Your task to perform on an android device: change your default location settings in chrome Image 0: 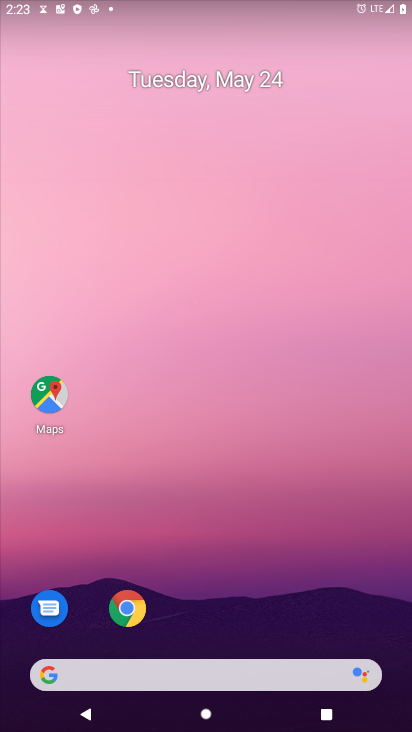
Step 0: drag from (253, 692) to (266, 70)
Your task to perform on an android device: change your default location settings in chrome Image 1: 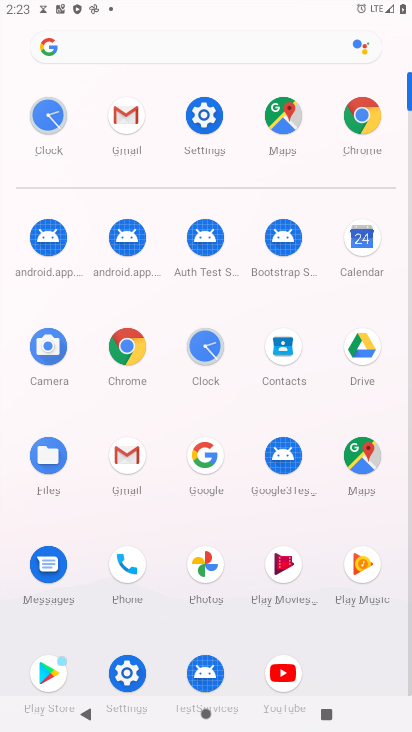
Step 1: click (360, 120)
Your task to perform on an android device: change your default location settings in chrome Image 2: 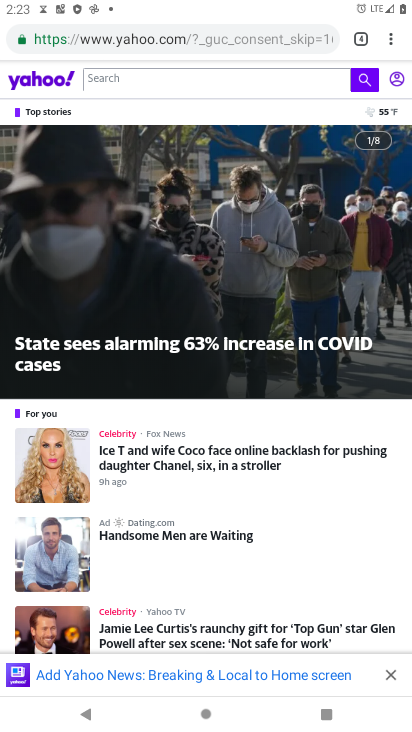
Step 2: click (391, 45)
Your task to perform on an android device: change your default location settings in chrome Image 3: 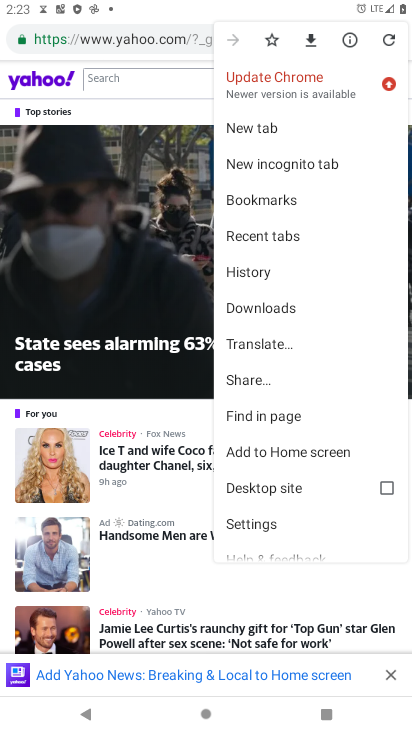
Step 3: click (240, 516)
Your task to perform on an android device: change your default location settings in chrome Image 4: 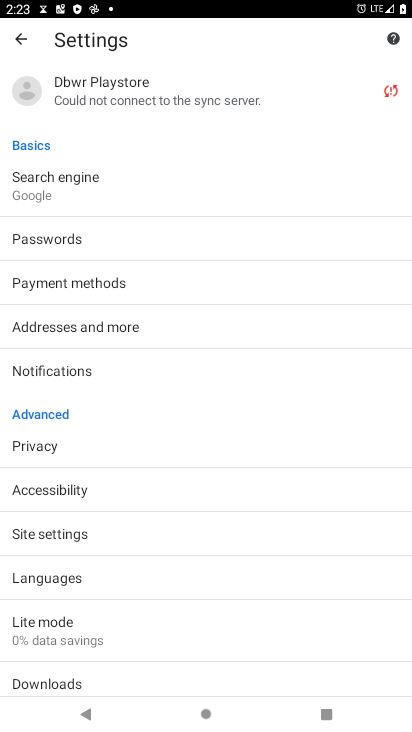
Step 4: click (46, 531)
Your task to perform on an android device: change your default location settings in chrome Image 5: 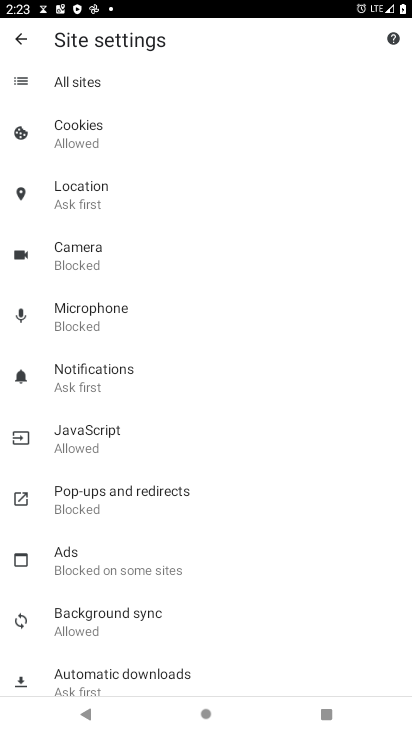
Step 5: click (103, 209)
Your task to perform on an android device: change your default location settings in chrome Image 6: 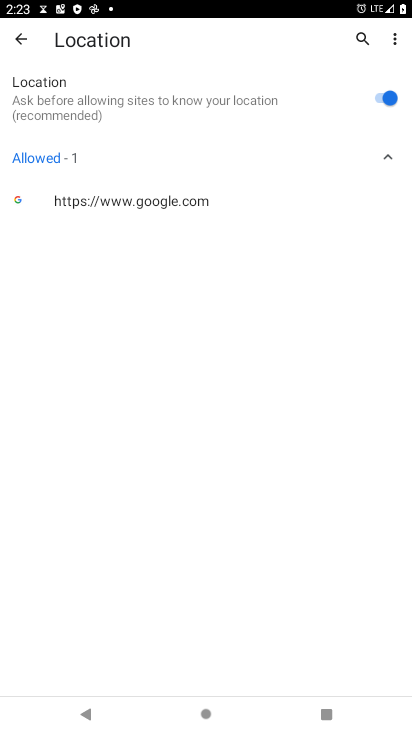
Step 6: task complete